Your task to perform on an android device: turn off picture-in-picture Image 0: 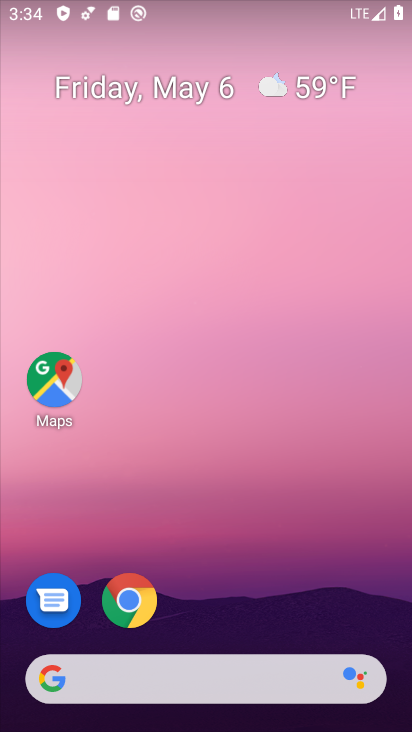
Step 0: click (132, 601)
Your task to perform on an android device: turn off picture-in-picture Image 1: 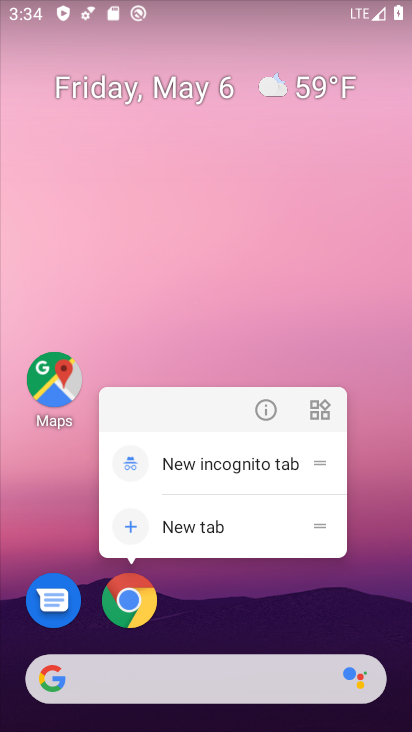
Step 1: click (265, 420)
Your task to perform on an android device: turn off picture-in-picture Image 2: 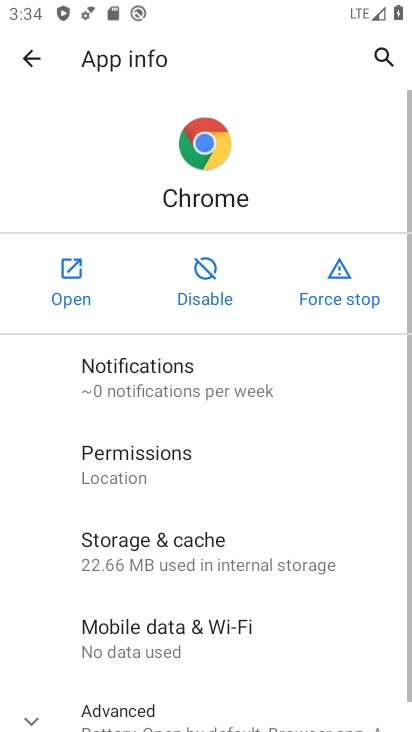
Step 2: drag from (155, 584) to (184, 137)
Your task to perform on an android device: turn off picture-in-picture Image 3: 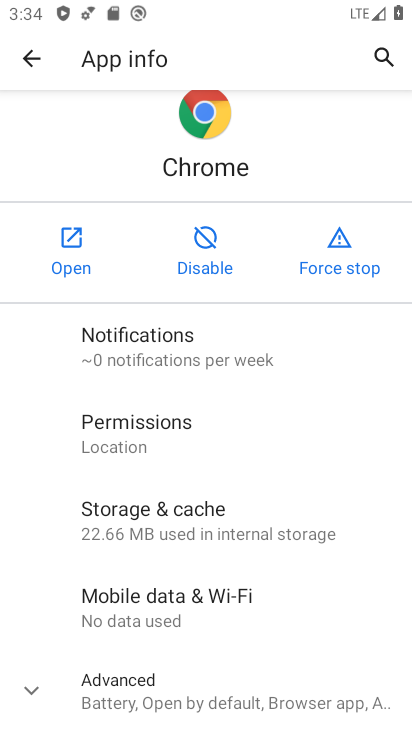
Step 3: drag from (219, 627) to (248, 433)
Your task to perform on an android device: turn off picture-in-picture Image 4: 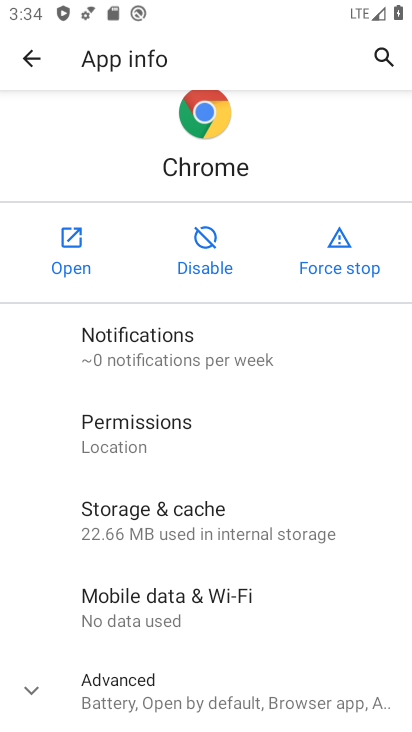
Step 4: click (123, 696)
Your task to perform on an android device: turn off picture-in-picture Image 5: 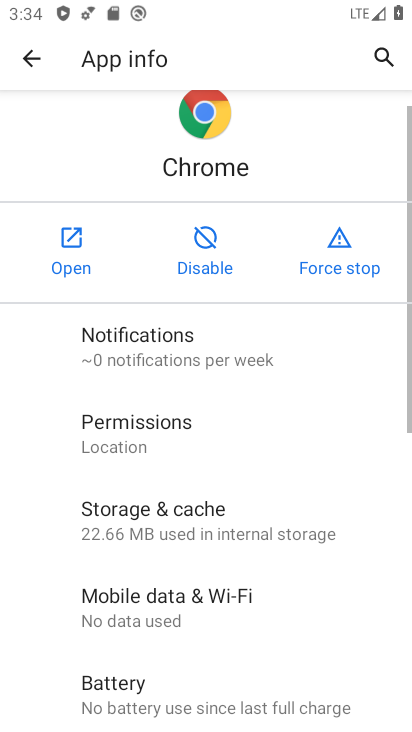
Step 5: drag from (179, 701) to (204, 316)
Your task to perform on an android device: turn off picture-in-picture Image 6: 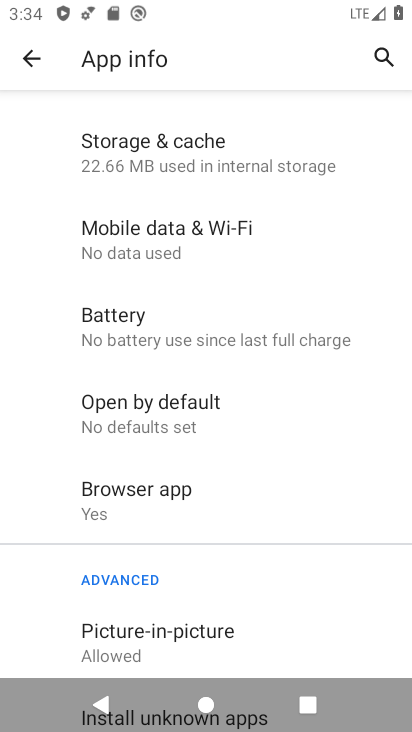
Step 6: drag from (184, 622) to (236, 425)
Your task to perform on an android device: turn off picture-in-picture Image 7: 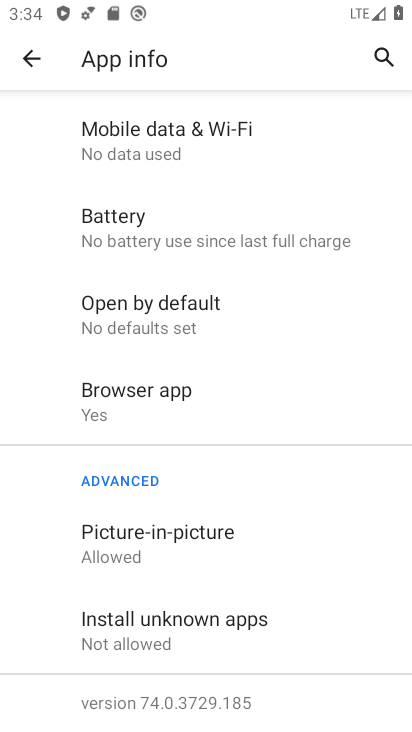
Step 7: click (146, 531)
Your task to perform on an android device: turn off picture-in-picture Image 8: 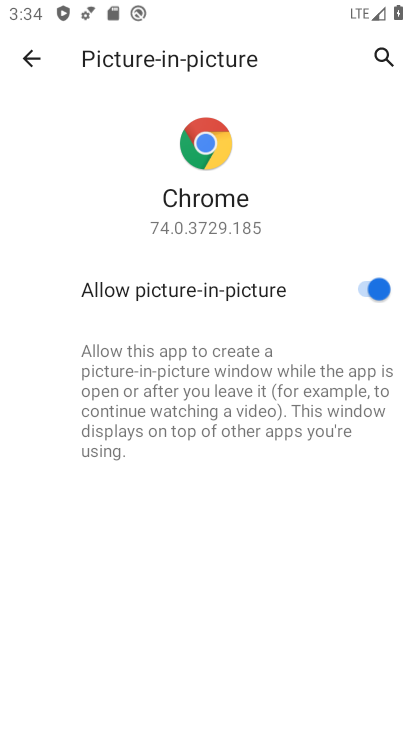
Step 8: click (360, 291)
Your task to perform on an android device: turn off picture-in-picture Image 9: 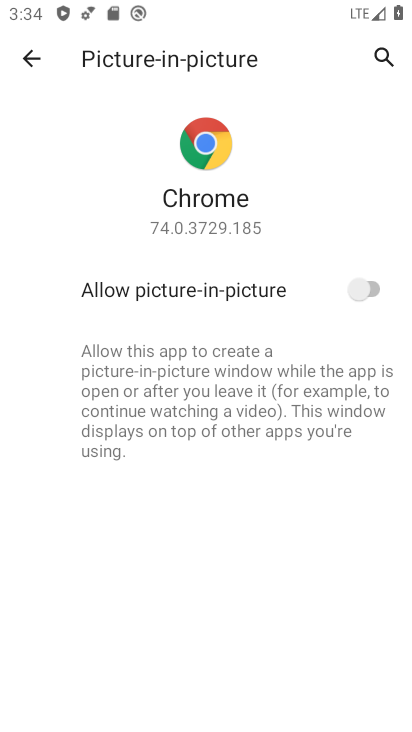
Step 9: task complete